Your task to perform on an android device: turn on airplane mode Image 0: 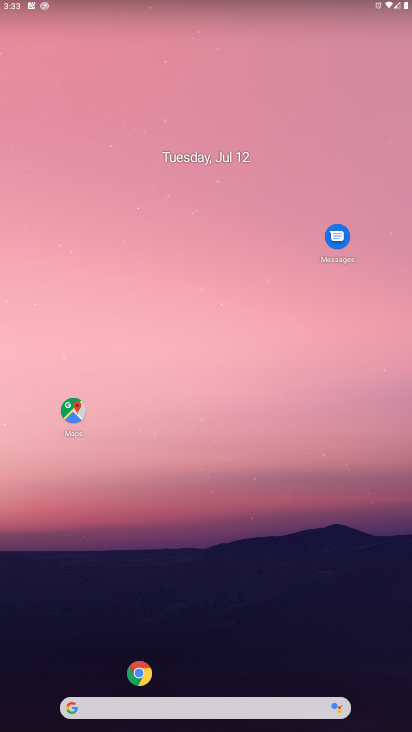
Step 0: drag from (38, 710) to (148, 180)
Your task to perform on an android device: turn on airplane mode Image 1: 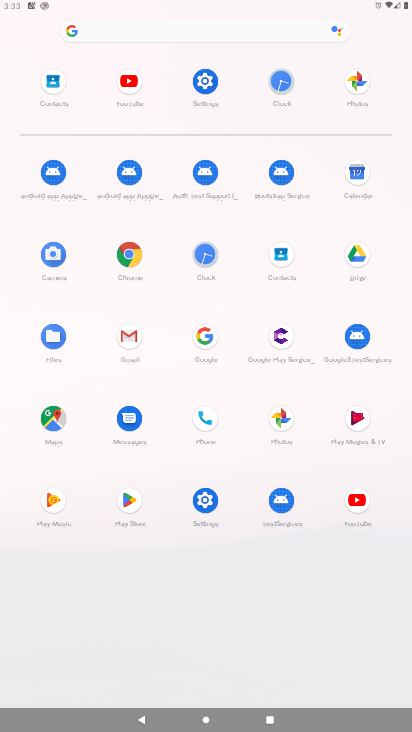
Step 1: click (202, 497)
Your task to perform on an android device: turn on airplane mode Image 2: 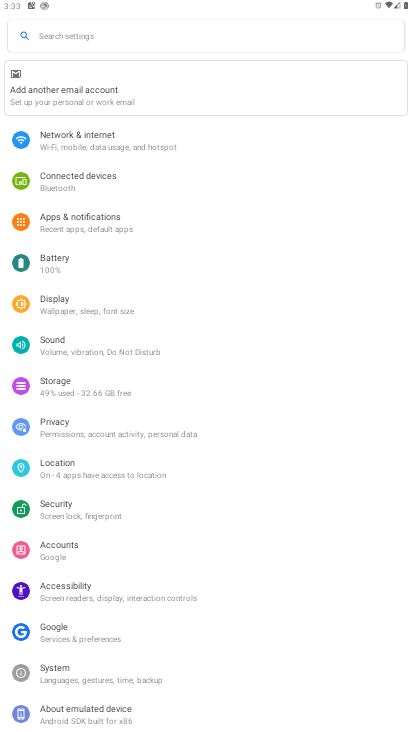
Step 2: click (89, 139)
Your task to perform on an android device: turn on airplane mode Image 3: 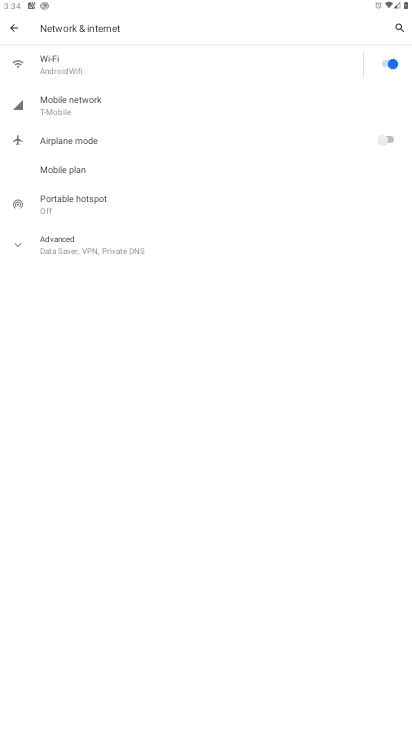
Step 3: click (386, 142)
Your task to perform on an android device: turn on airplane mode Image 4: 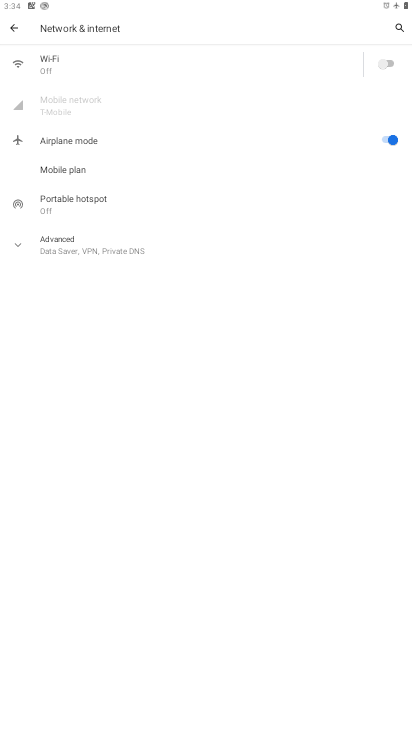
Step 4: task complete